Your task to perform on an android device: turn on javascript in the chrome app Image 0: 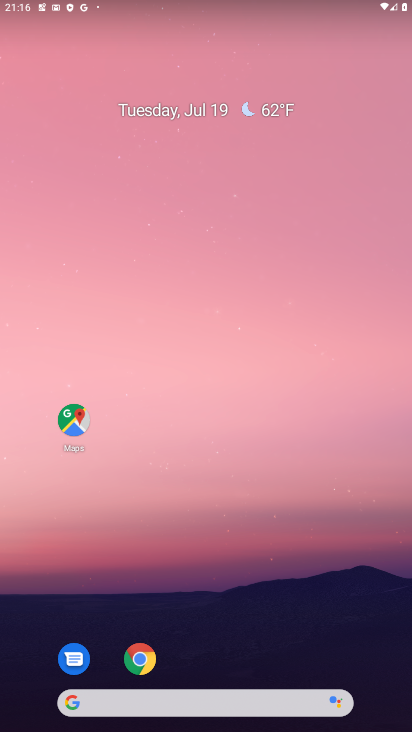
Step 0: press home button
Your task to perform on an android device: turn on javascript in the chrome app Image 1: 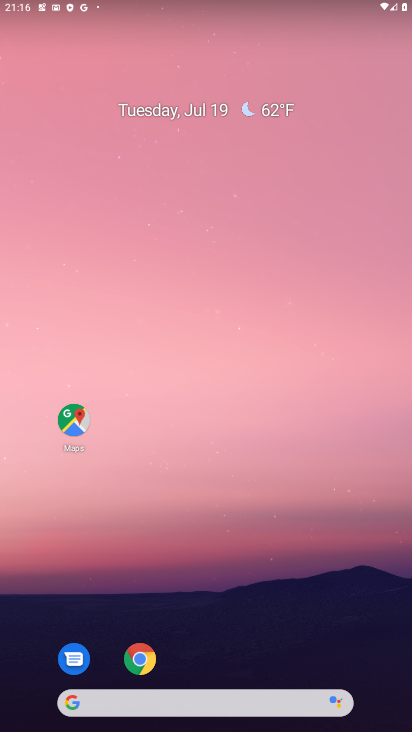
Step 1: click (144, 655)
Your task to perform on an android device: turn on javascript in the chrome app Image 2: 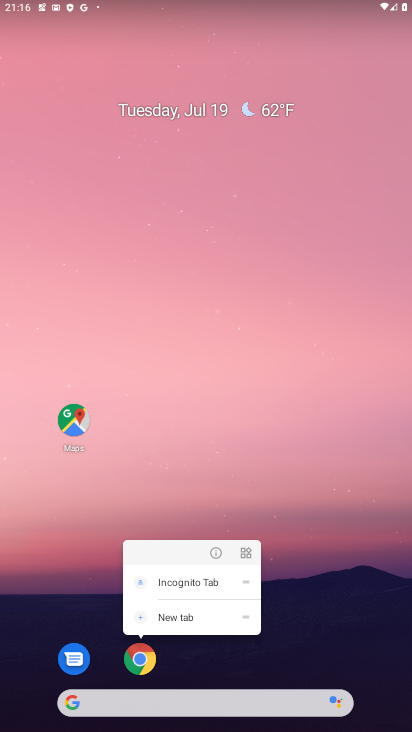
Step 2: click (144, 655)
Your task to perform on an android device: turn on javascript in the chrome app Image 3: 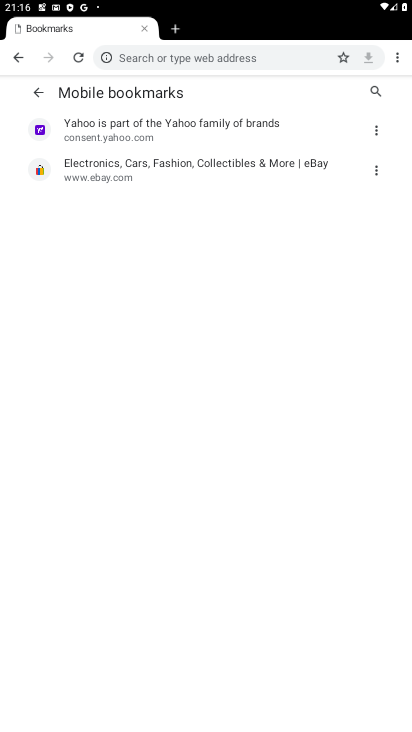
Step 3: drag from (402, 55) to (258, 253)
Your task to perform on an android device: turn on javascript in the chrome app Image 4: 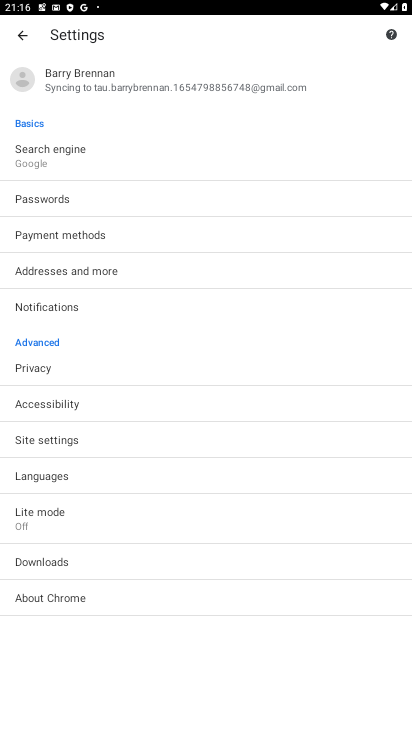
Step 4: click (37, 449)
Your task to perform on an android device: turn on javascript in the chrome app Image 5: 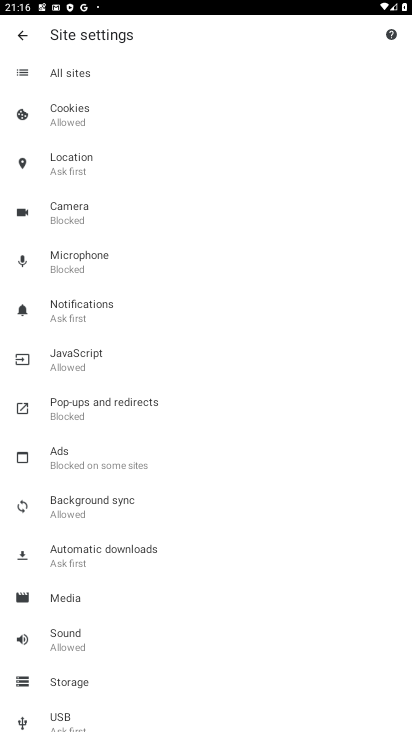
Step 5: click (65, 355)
Your task to perform on an android device: turn on javascript in the chrome app Image 6: 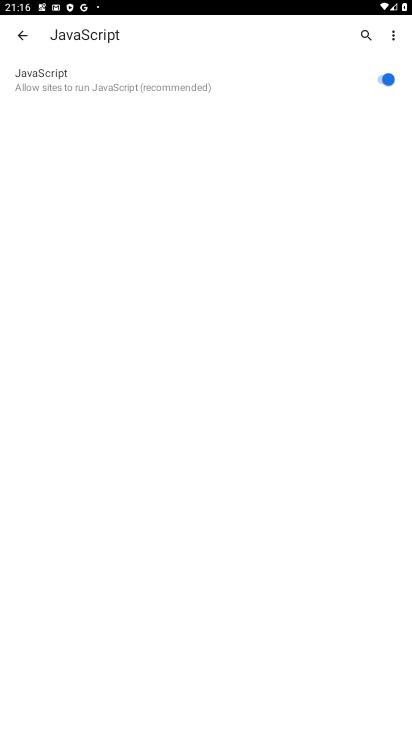
Step 6: task complete